Your task to perform on an android device: open sync settings in chrome Image 0: 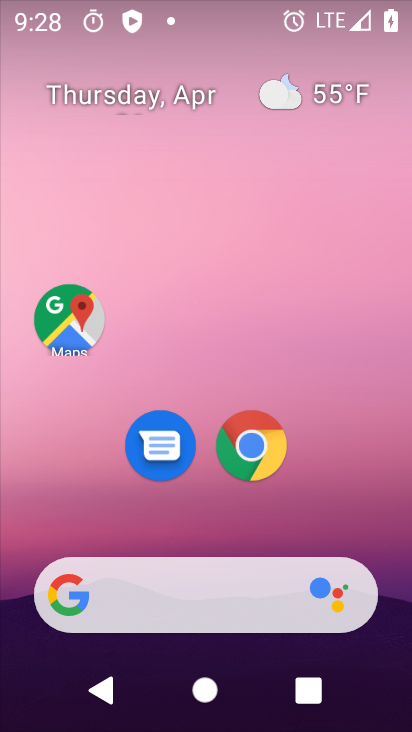
Step 0: click (251, 445)
Your task to perform on an android device: open sync settings in chrome Image 1: 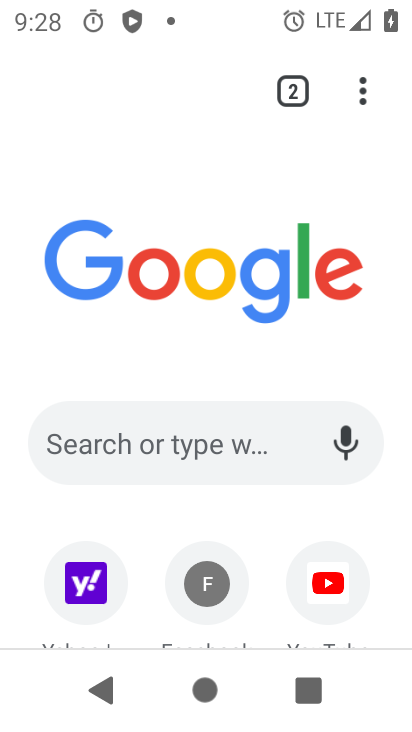
Step 1: click (368, 104)
Your task to perform on an android device: open sync settings in chrome Image 2: 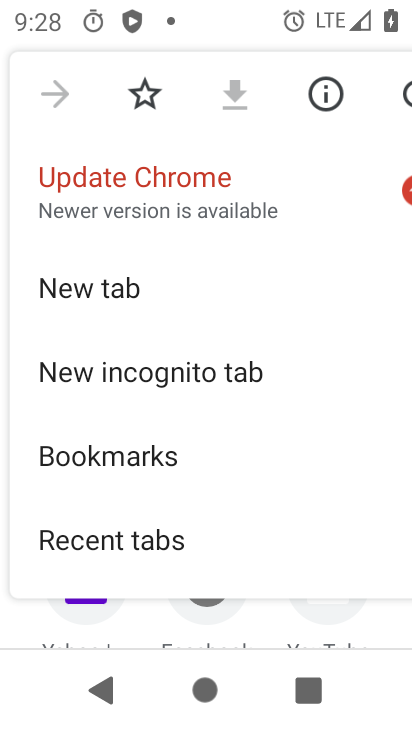
Step 2: drag from (192, 503) to (209, 86)
Your task to perform on an android device: open sync settings in chrome Image 3: 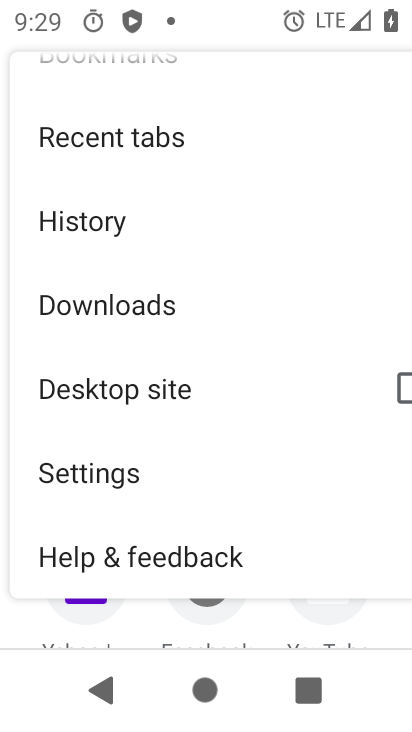
Step 3: click (108, 489)
Your task to perform on an android device: open sync settings in chrome Image 4: 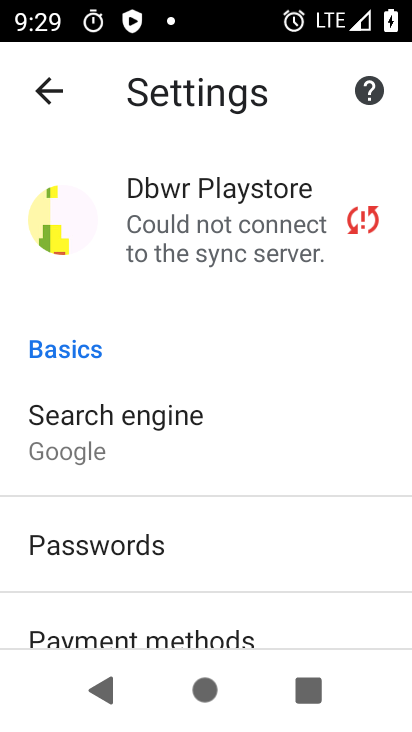
Step 4: click (201, 246)
Your task to perform on an android device: open sync settings in chrome Image 5: 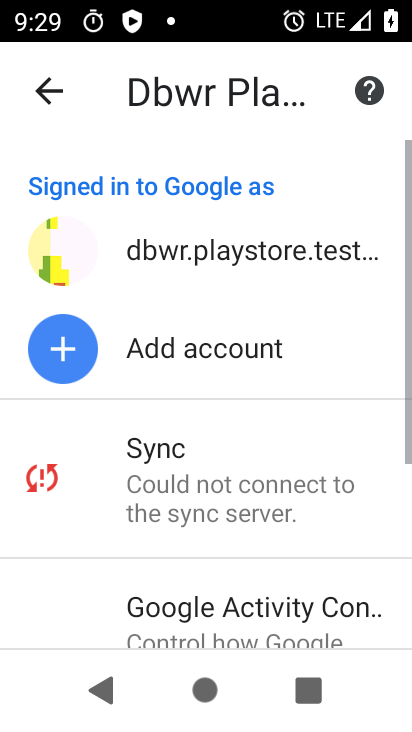
Step 5: click (186, 474)
Your task to perform on an android device: open sync settings in chrome Image 6: 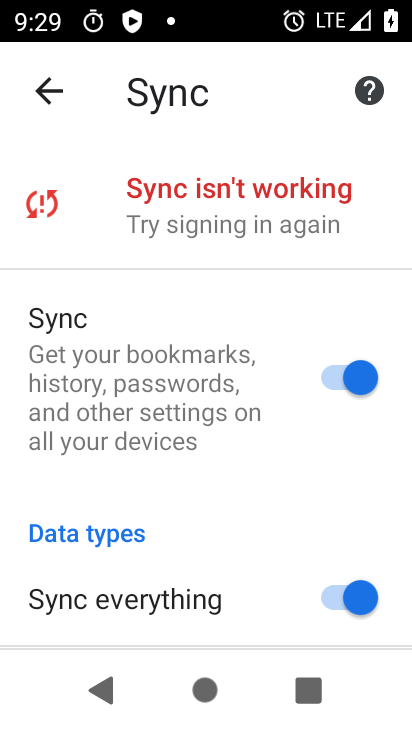
Step 6: task complete